Your task to perform on an android device: open app "Yahoo Mail" Image 0: 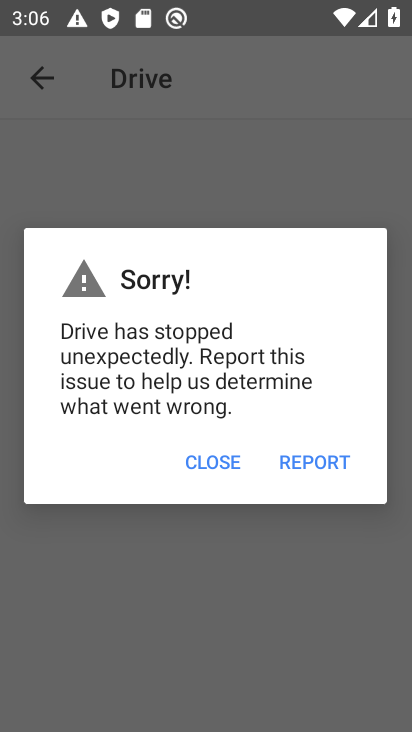
Step 0: click (220, 464)
Your task to perform on an android device: open app "Yahoo Mail" Image 1: 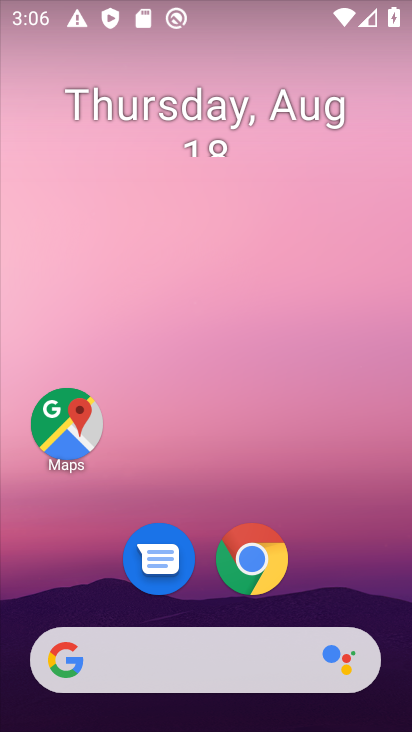
Step 1: drag from (172, 613) to (0, 23)
Your task to perform on an android device: open app "Yahoo Mail" Image 2: 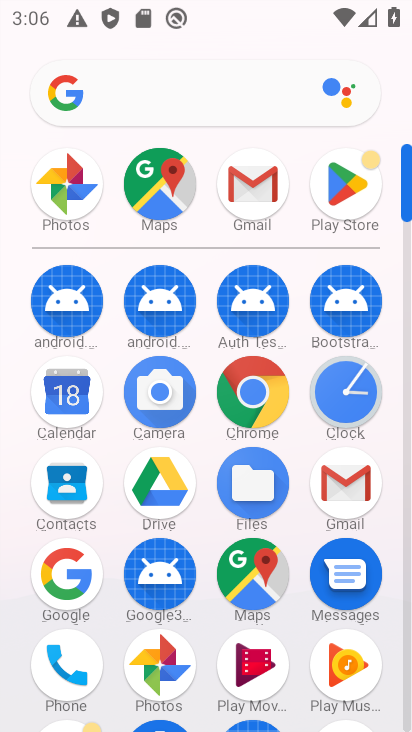
Step 2: click (335, 203)
Your task to perform on an android device: open app "Yahoo Mail" Image 3: 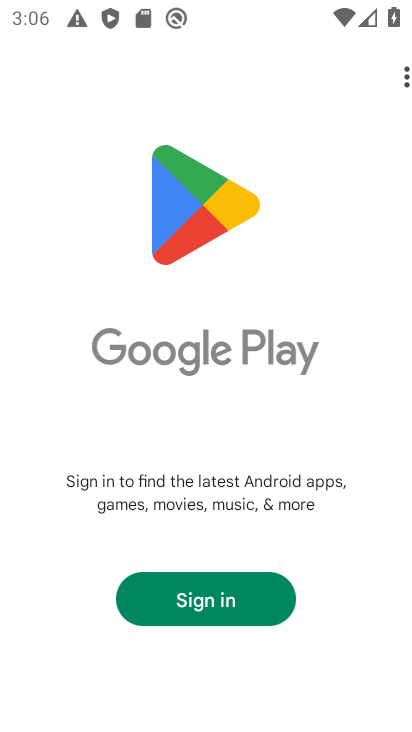
Step 3: click (235, 602)
Your task to perform on an android device: open app "Yahoo Mail" Image 4: 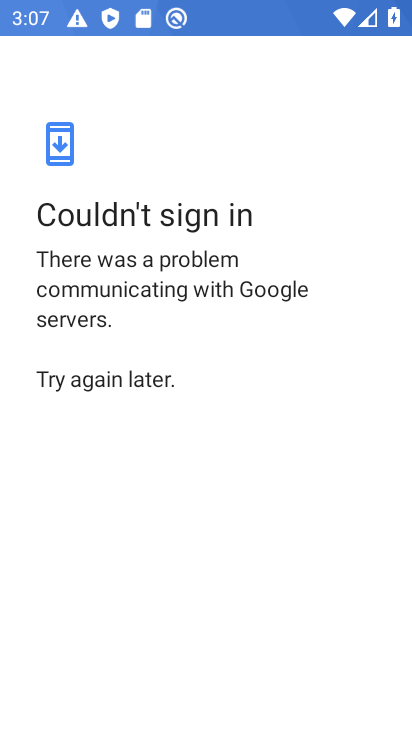
Step 4: task complete